Your task to perform on an android device: turn off improve location accuracy Image 0: 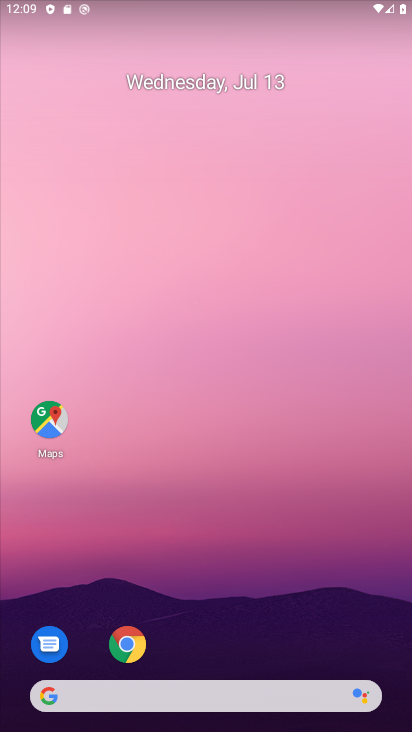
Step 0: drag from (270, 619) to (29, 163)
Your task to perform on an android device: turn off improve location accuracy Image 1: 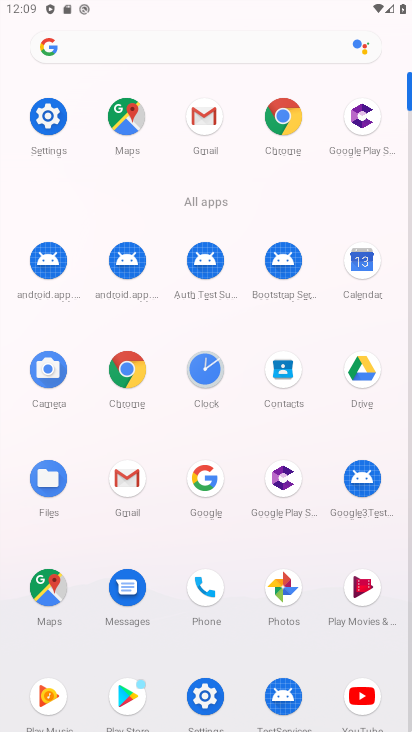
Step 1: click (46, 124)
Your task to perform on an android device: turn off improve location accuracy Image 2: 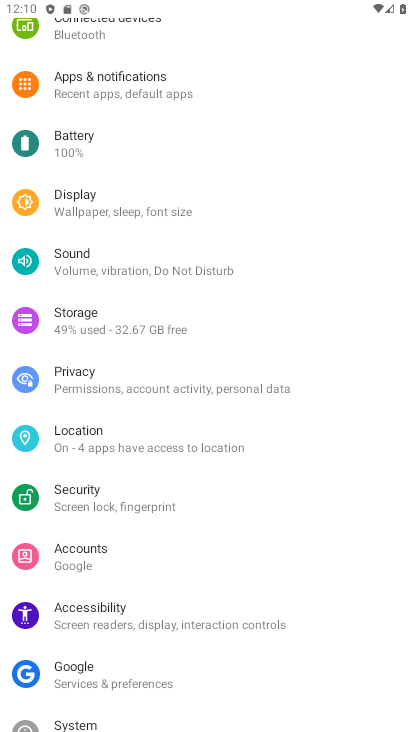
Step 2: click (121, 450)
Your task to perform on an android device: turn off improve location accuracy Image 3: 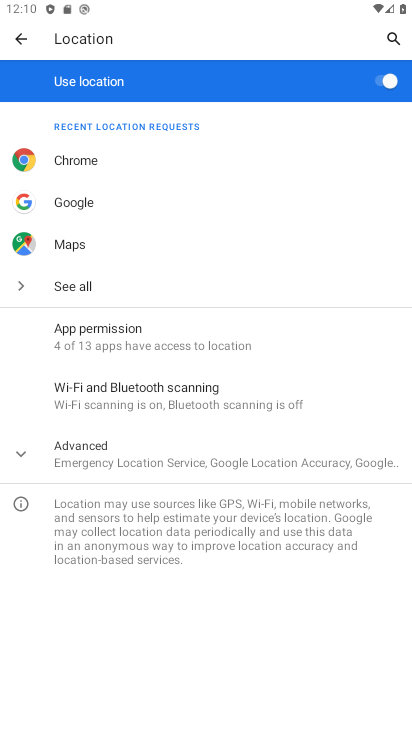
Step 3: click (163, 448)
Your task to perform on an android device: turn off improve location accuracy Image 4: 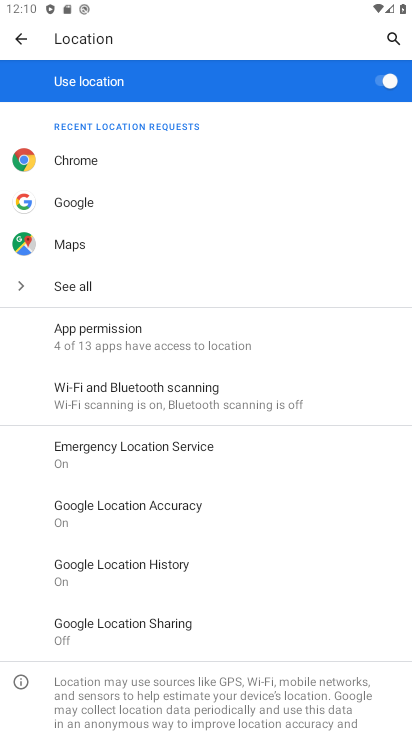
Step 4: click (184, 497)
Your task to perform on an android device: turn off improve location accuracy Image 5: 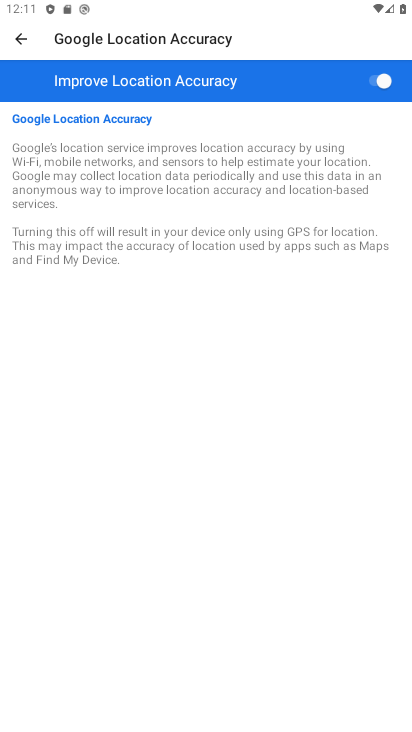
Step 5: click (357, 88)
Your task to perform on an android device: turn off improve location accuracy Image 6: 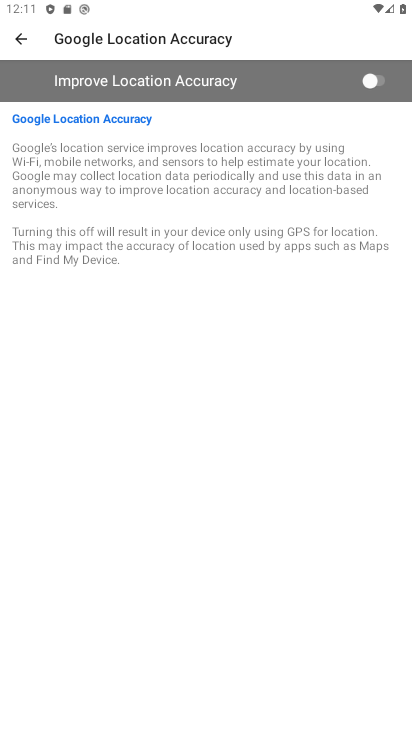
Step 6: task complete